Your task to perform on an android device: Open Google Image 0: 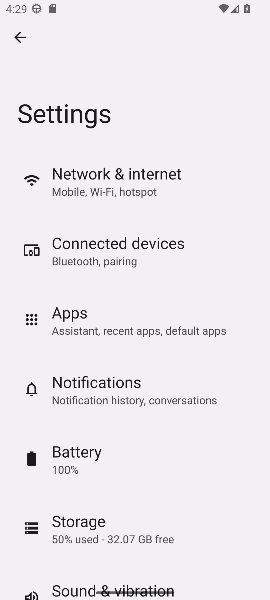
Step 0: press home button
Your task to perform on an android device: Open Google Image 1: 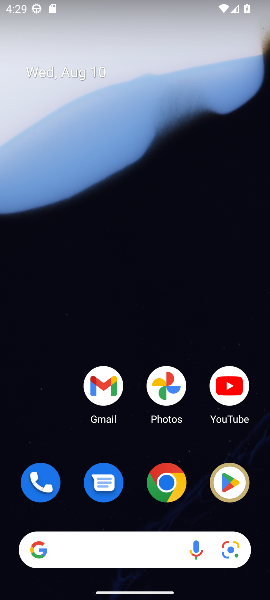
Step 1: drag from (59, 416) to (79, 10)
Your task to perform on an android device: Open Google Image 2: 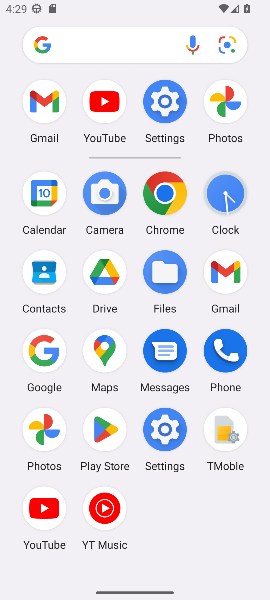
Step 2: click (49, 343)
Your task to perform on an android device: Open Google Image 3: 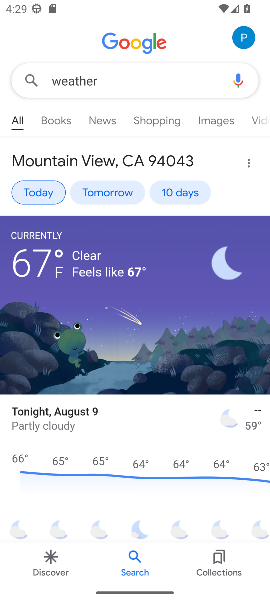
Step 3: click (164, 82)
Your task to perform on an android device: Open Google Image 4: 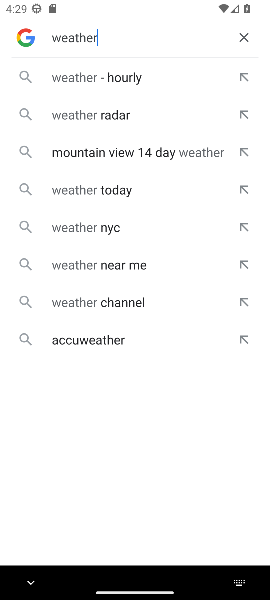
Step 4: click (245, 34)
Your task to perform on an android device: Open Google Image 5: 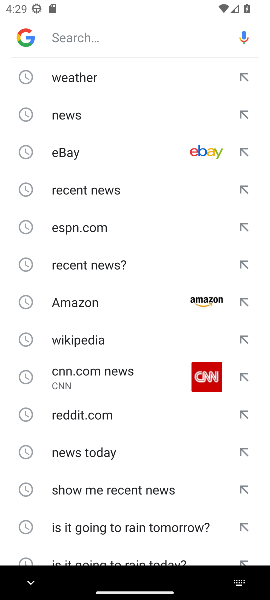
Step 5: click (25, 39)
Your task to perform on an android device: Open Google Image 6: 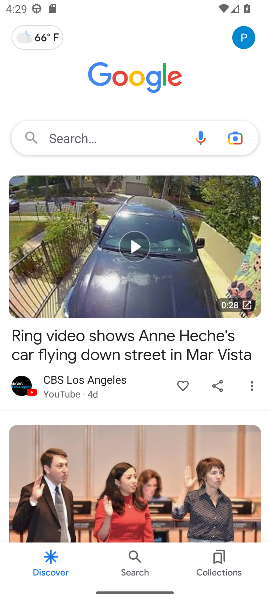
Step 6: task complete